Your task to perform on an android device: Go to Google maps Image 0: 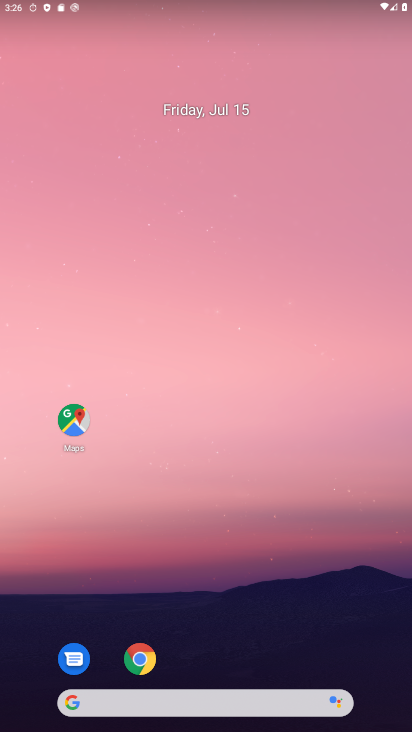
Step 0: click (68, 435)
Your task to perform on an android device: Go to Google maps Image 1: 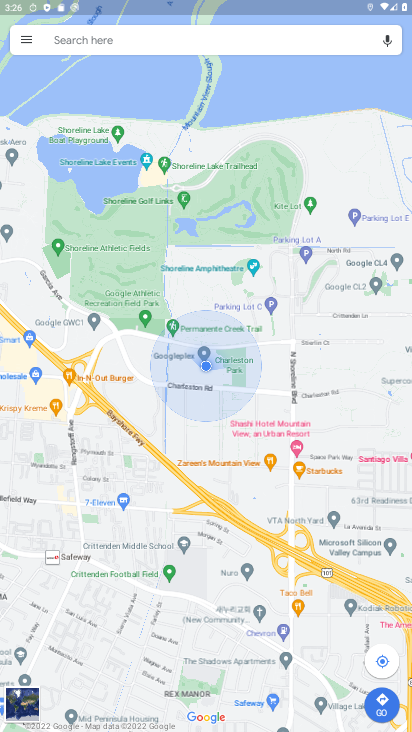
Step 1: task complete